Your task to perform on an android device: Open sound settings Image 0: 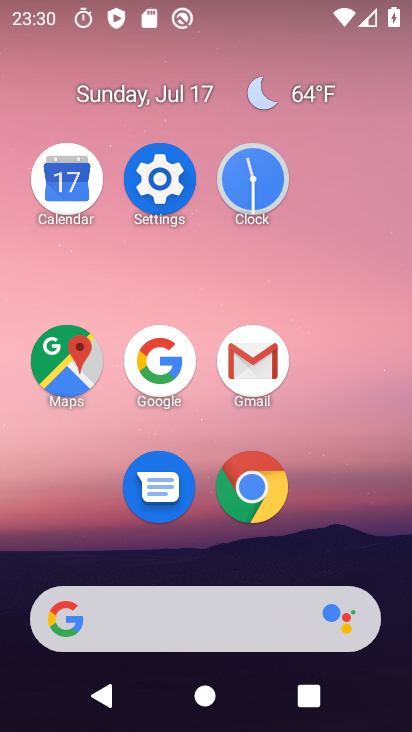
Step 0: click (152, 170)
Your task to perform on an android device: Open sound settings Image 1: 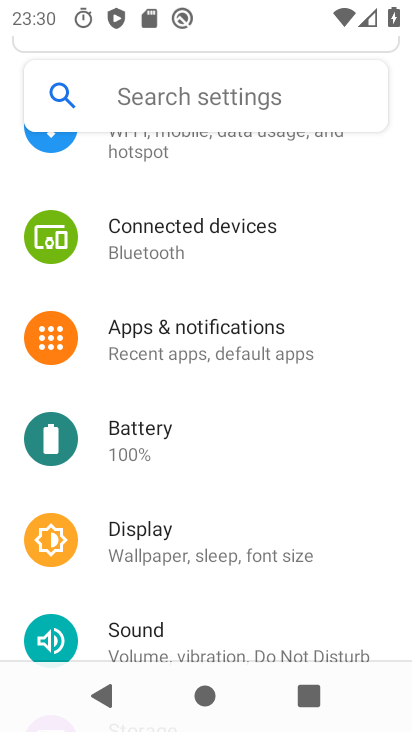
Step 1: click (220, 643)
Your task to perform on an android device: Open sound settings Image 2: 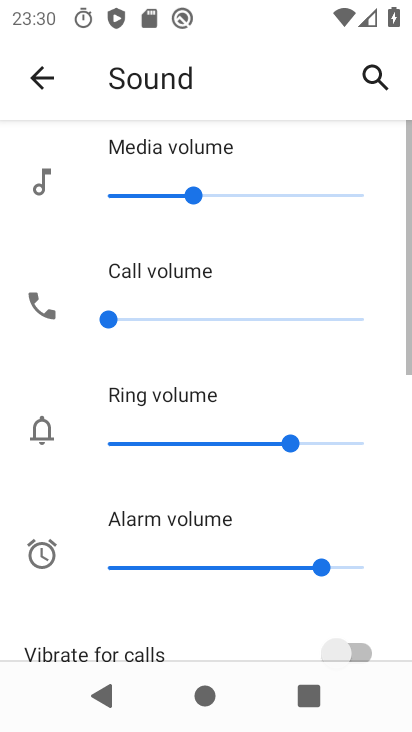
Step 2: task complete